Your task to perform on an android device: Show me the alarms in the clock app Image 0: 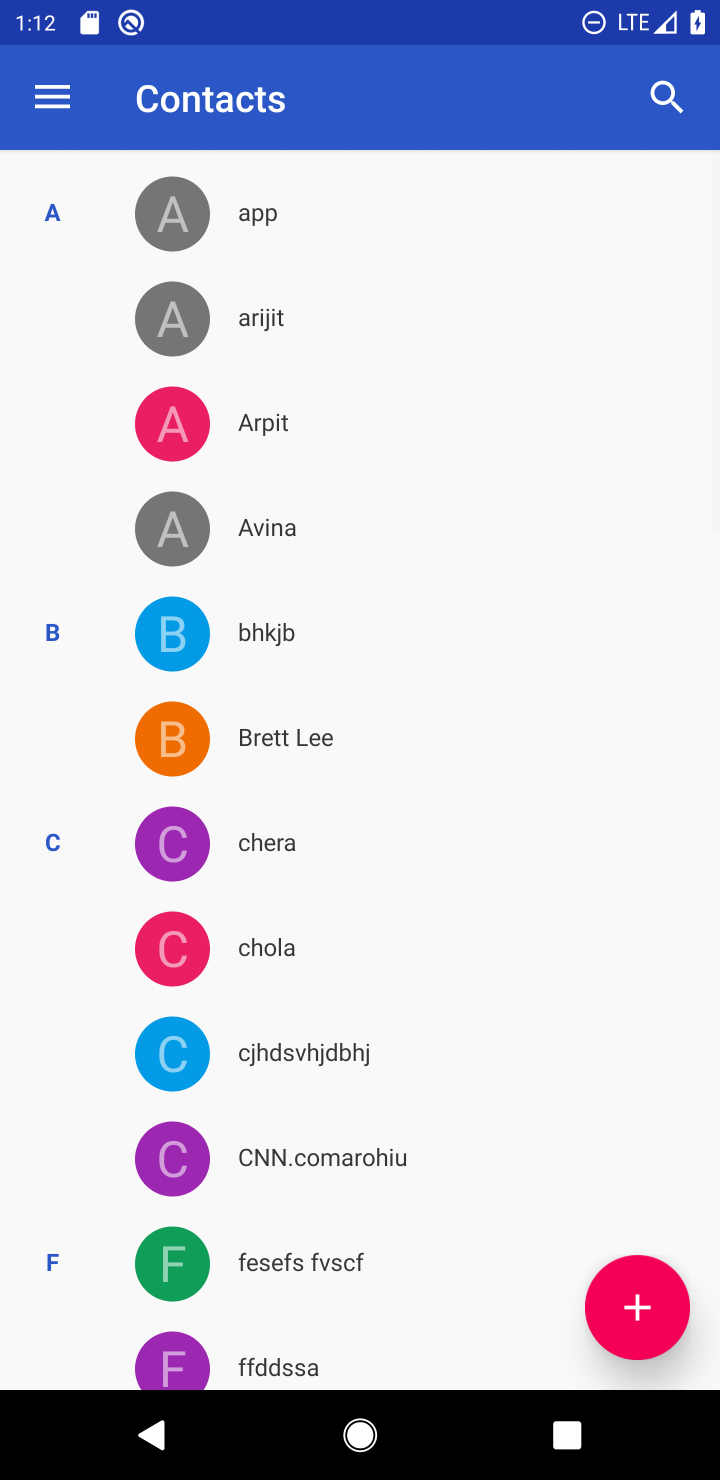
Step 0: press home button
Your task to perform on an android device: Show me the alarms in the clock app Image 1: 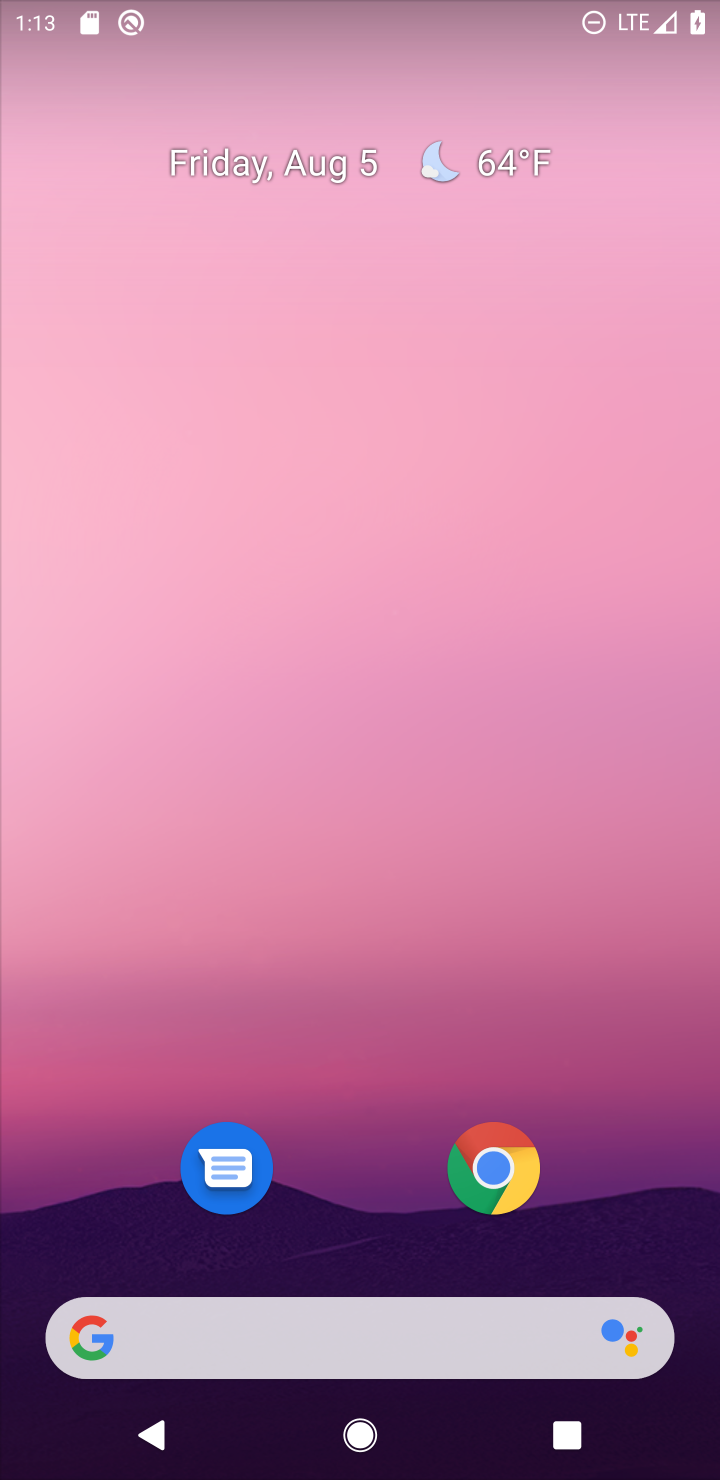
Step 1: drag from (642, 1079) to (303, 31)
Your task to perform on an android device: Show me the alarms in the clock app Image 2: 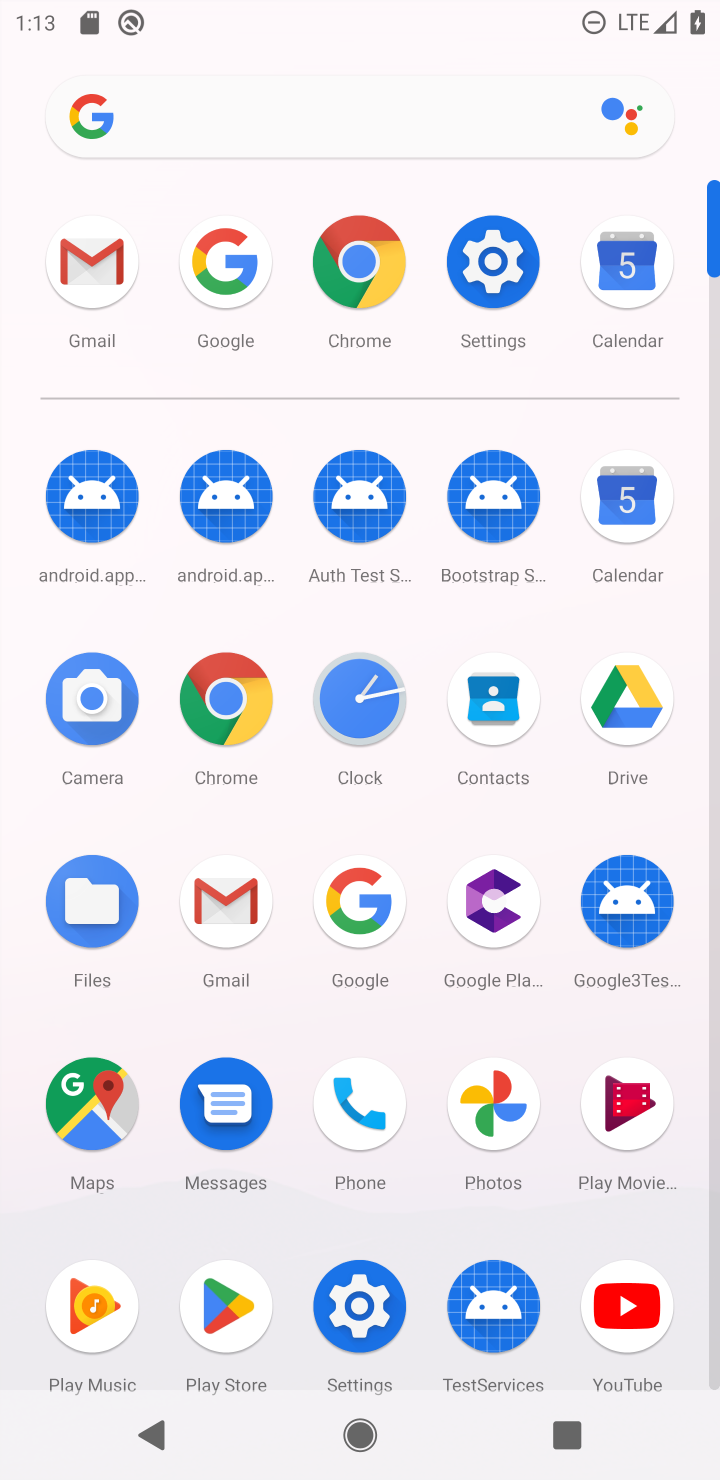
Step 2: click (325, 711)
Your task to perform on an android device: Show me the alarms in the clock app Image 3: 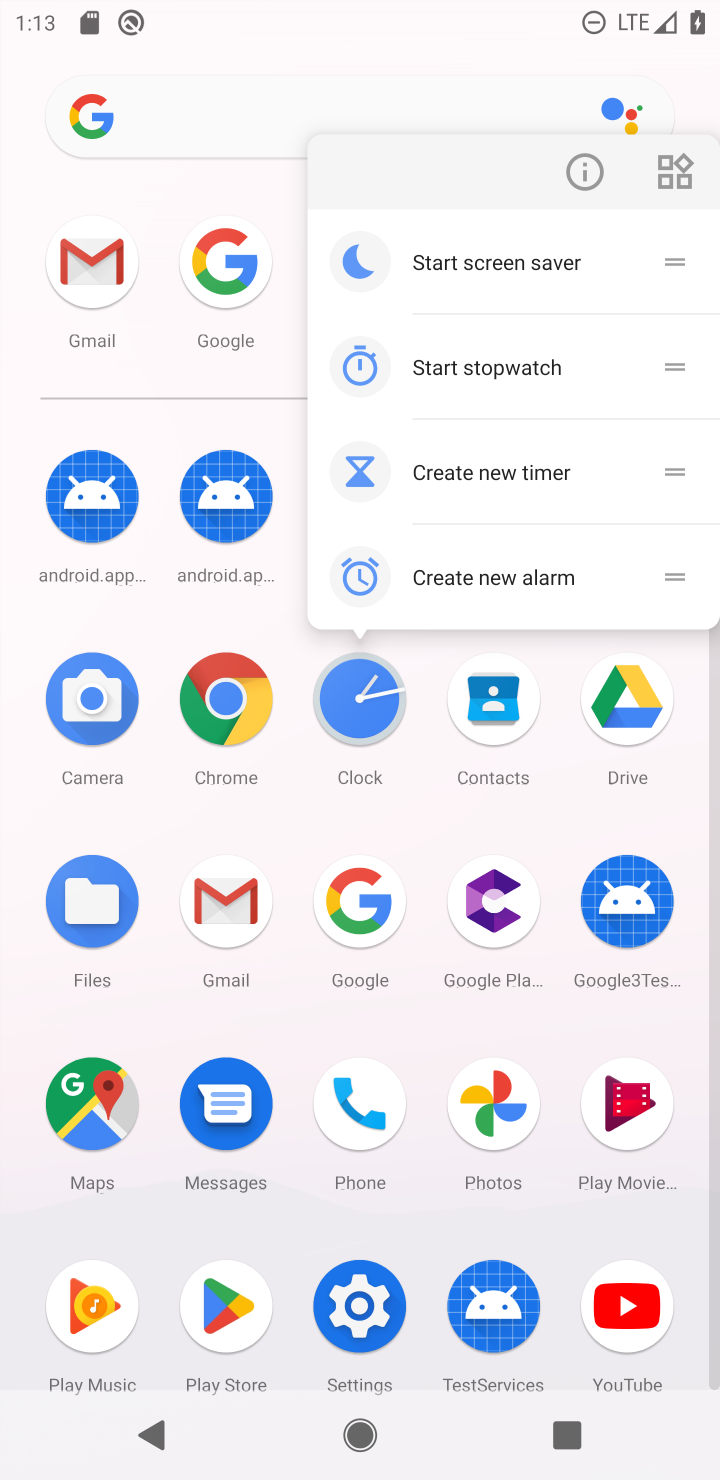
Step 3: click (400, 107)
Your task to perform on an android device: Show me the alarms in the clock app Image 4: 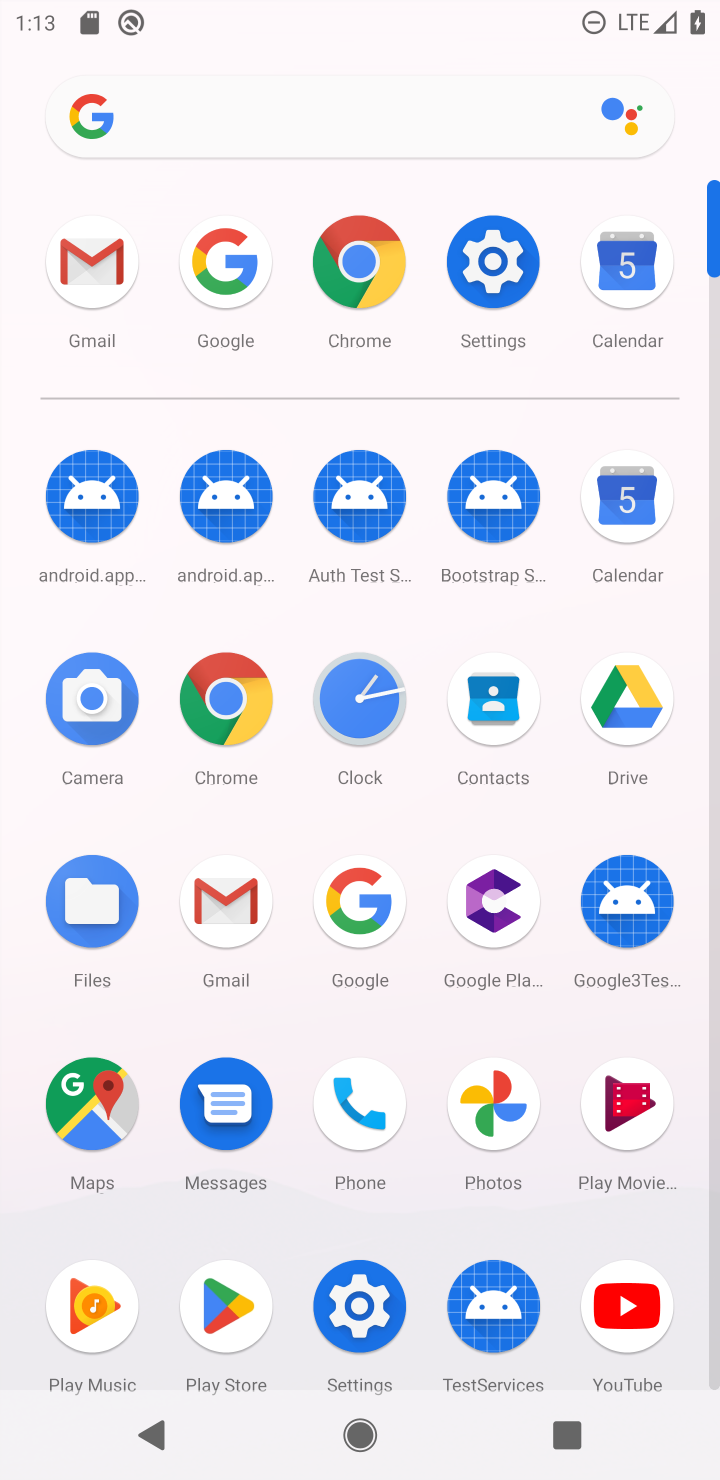
Step 4: click (361, 739)
Your task to perform on an android device: Show me the alarms in the clock app Image 5: 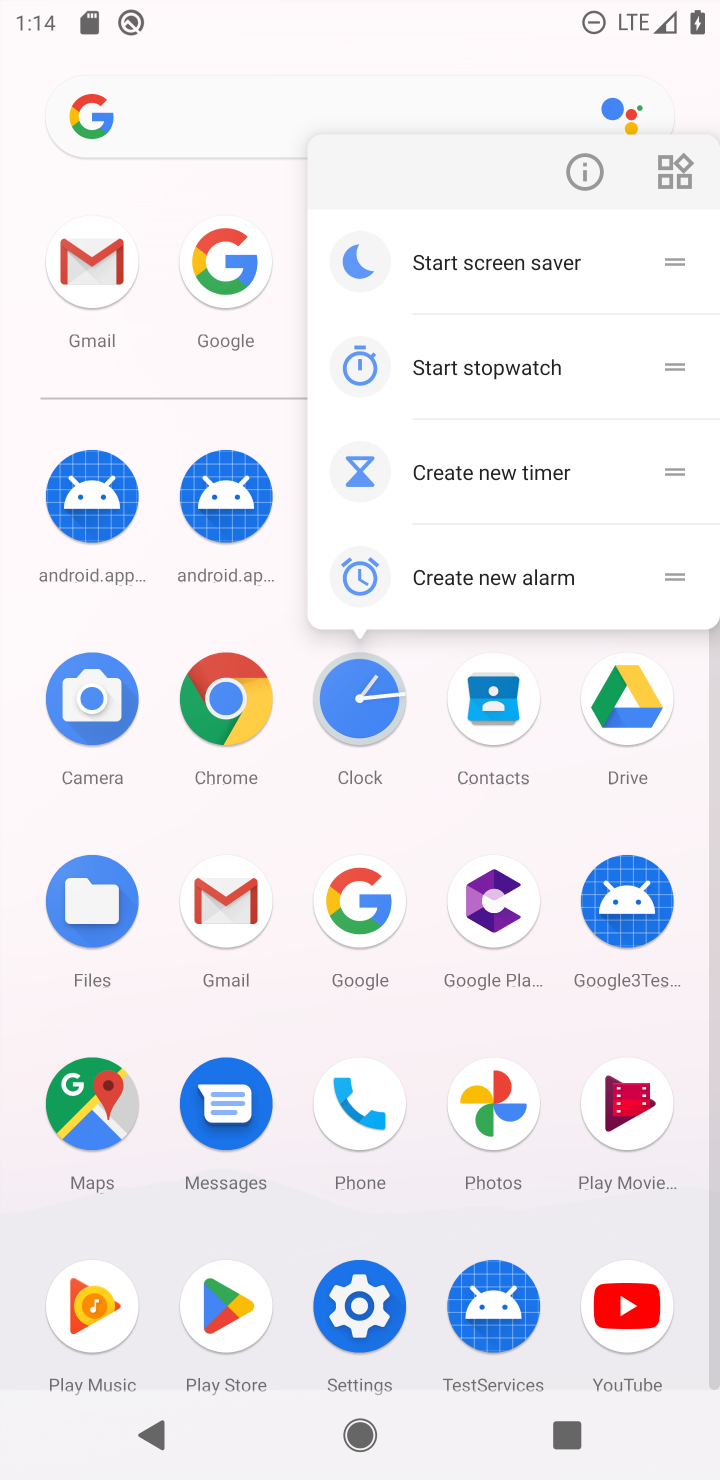
Step 5: click (361, 739)
Your task to perform on an android device: Show me the alarms in the clock app Image 6: 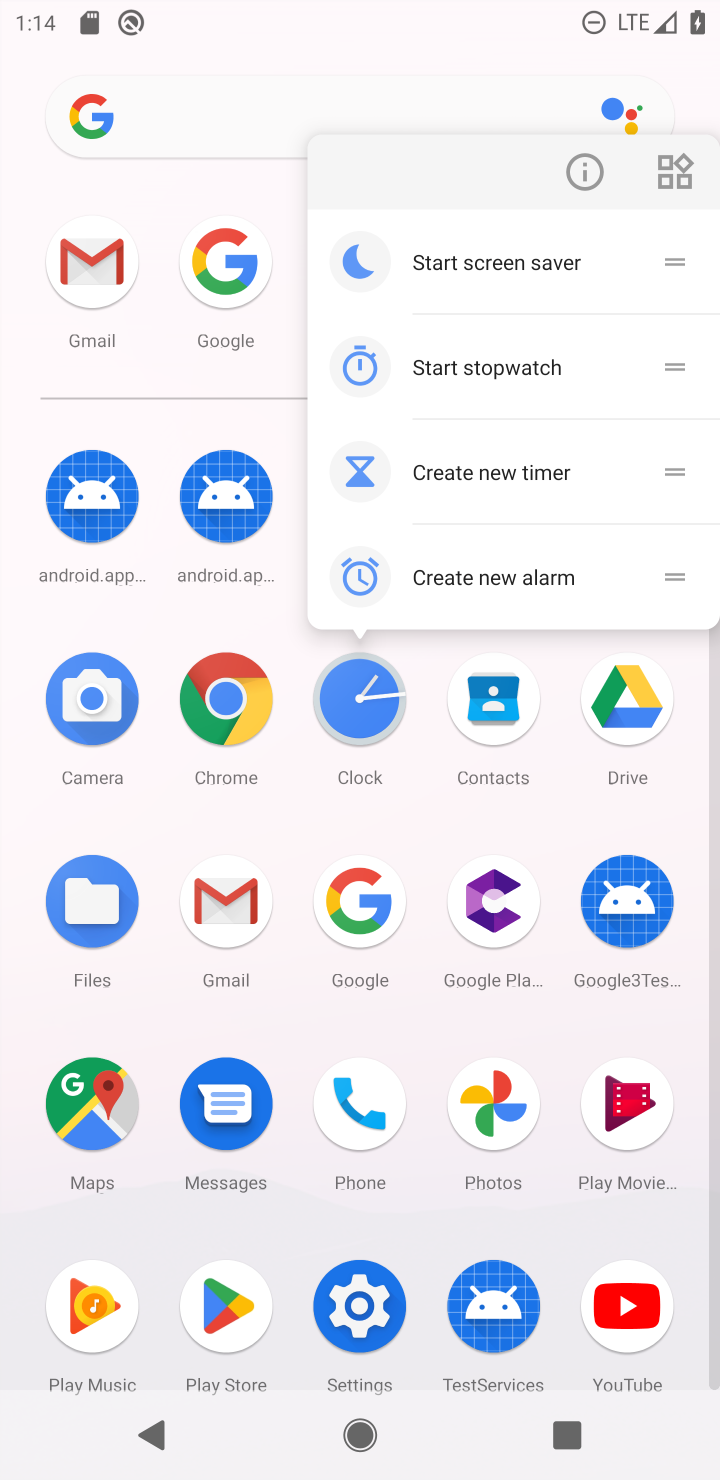
Step 6: task complete